Your task to perform on an android device: Go to location settings Image 0: 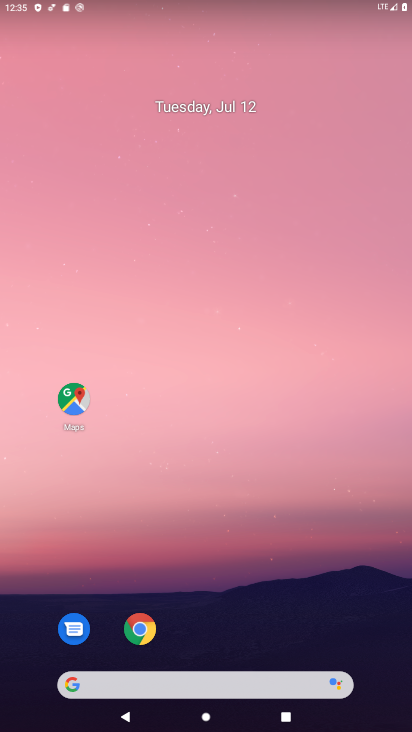
Step 0: drag from (310, 637) to (326, 63)
Your task to perform on an android device: Go to location settings Image 1: 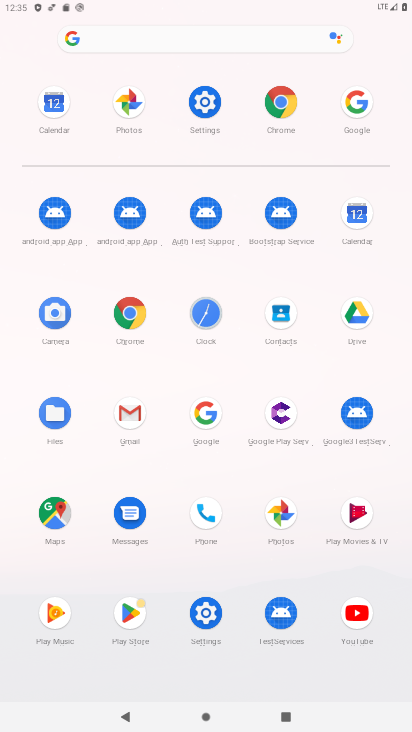
Step 1: click (202, 94)
Your task to perform on an android device: Go to location settings Image 2: 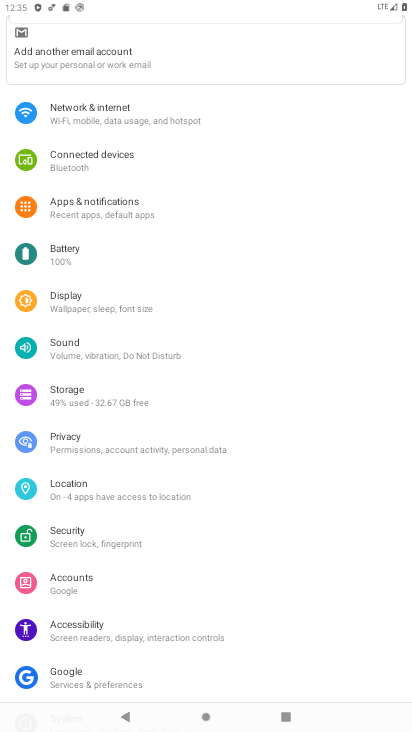
Step 2: click (94, 497)
Your task to perform on an android device: Go to location settings Image 3: 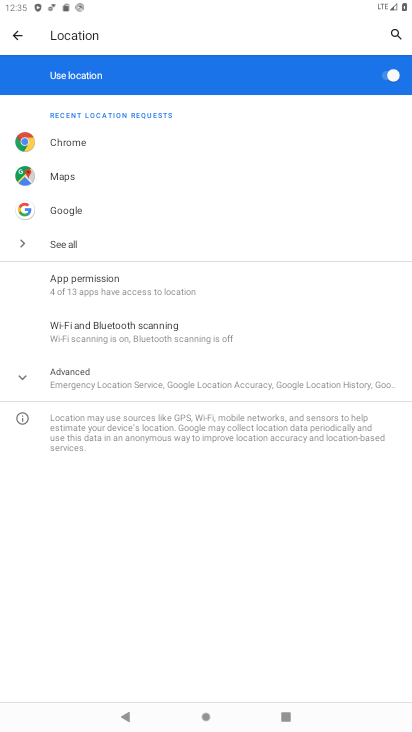
Step 3: task complete